Your task to perform on an android device: turn off location Image 0: 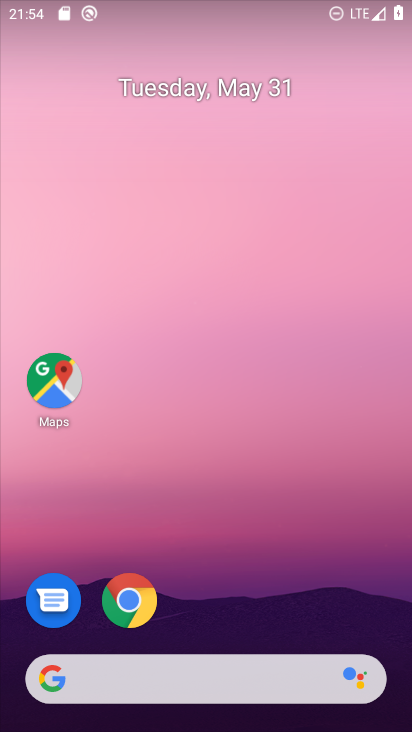
Step 0: drag from (212, 581) to (226, 79)
Your task to perform on an android device: turn off location Image 1: 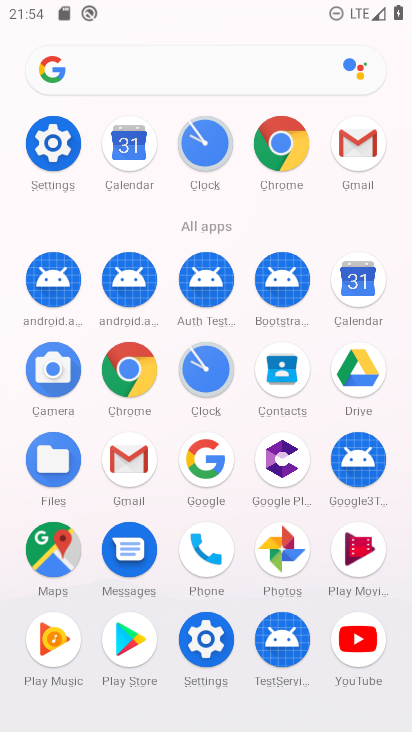
Step 1: click (65, 145)
Your task to perform on an android device: turn off location Image 2: 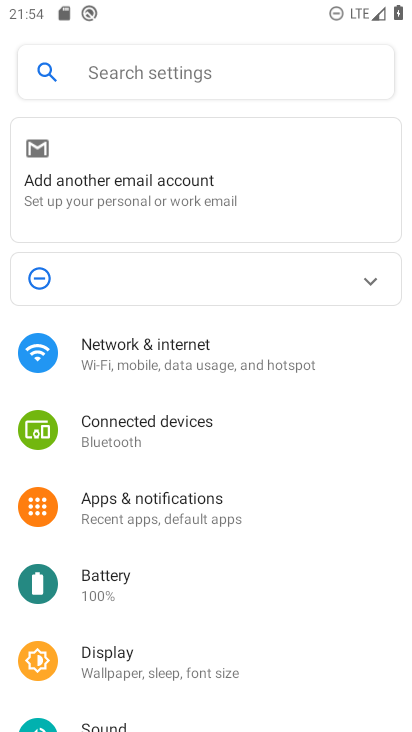
Step 2: drag from (247, 628) to (255, 141)
Your task to perform on an android device: turn off location Image 3: 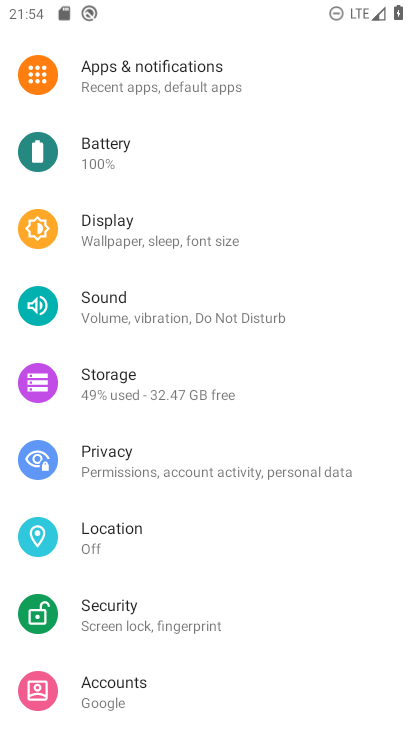
Step 3: click (116, 520)
Your task to perform on an android device: turn off location Image 4: 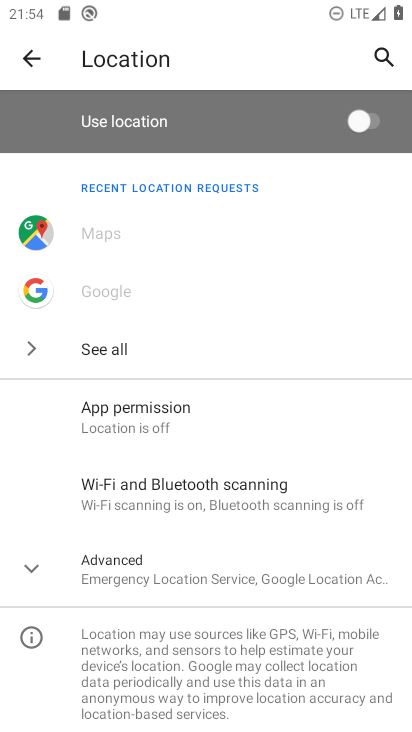
Step 4: task complete